Your task to perform on an android device: Open accessibility settings Image 0: 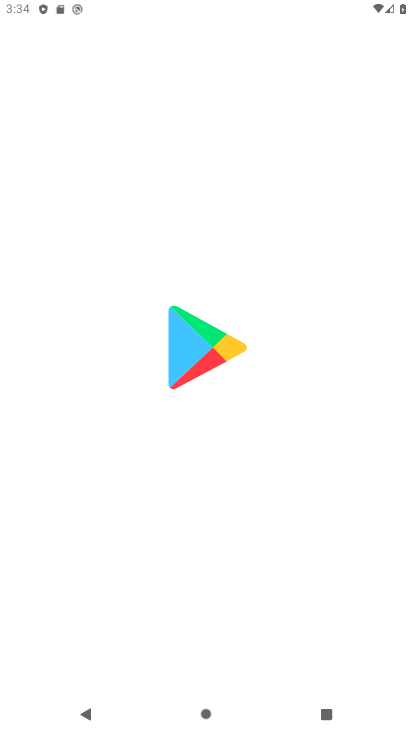
Step 0: click (132, 608)
Your task to perform on an android device: Open accessibility settings Image 1: 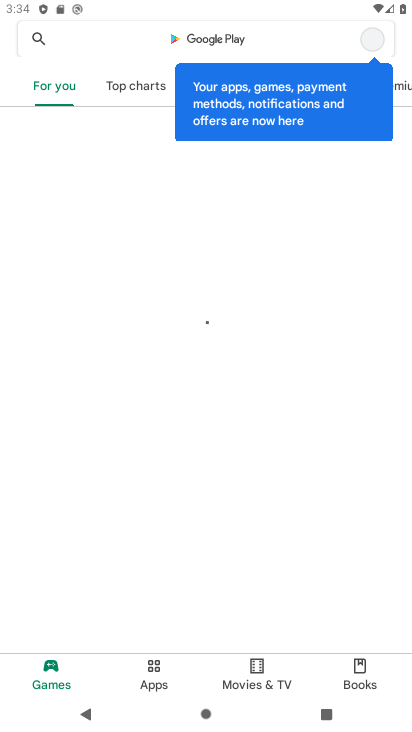
Step 1: press home button
Your task to perform on an android device: Open accessibility settings Image 2: 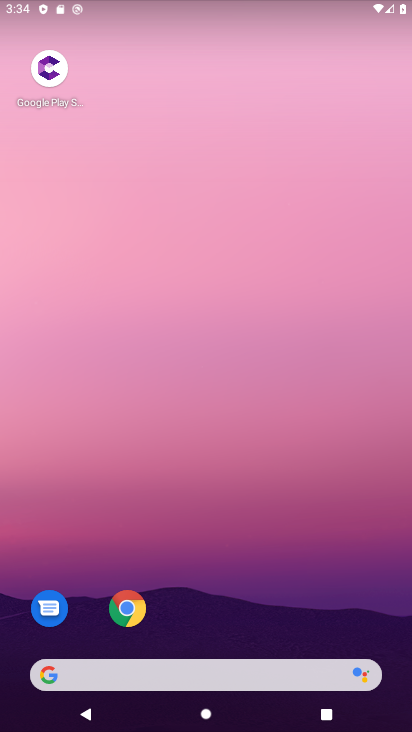
Step 2: drag from (166, 627) to (206, 249)
Your task to perform on an android device: Open accessibility settings Image 3: 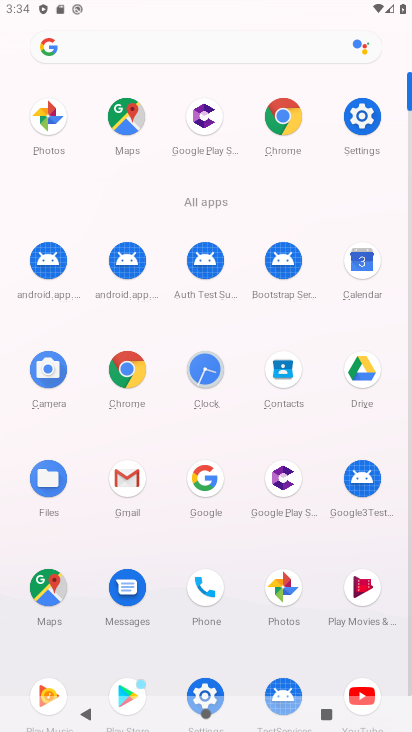
Step 3: click (356, 114)
Your task to perform on an android device: Open accessibility settings Image 4: 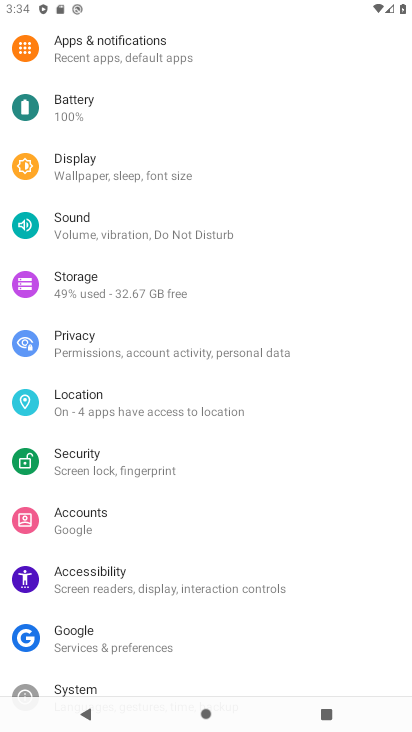
Step 4: click (141, 575)
Your task to perform on an android device: Open accessibility settings Image 5: 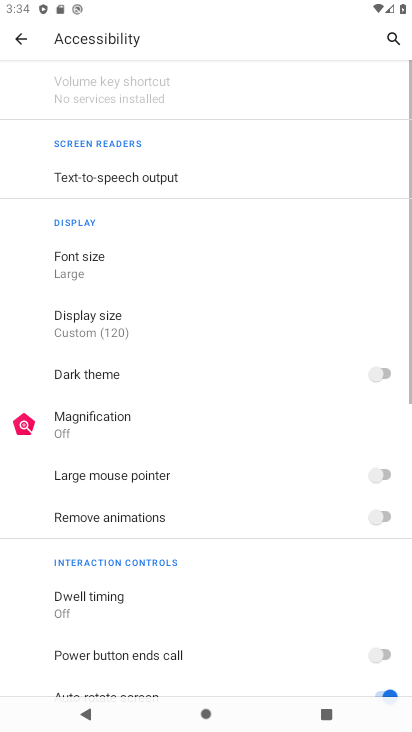
Step 5: task complete